Your task to perform on an android device: see tabs open on other devices in the chrome app Image 0: 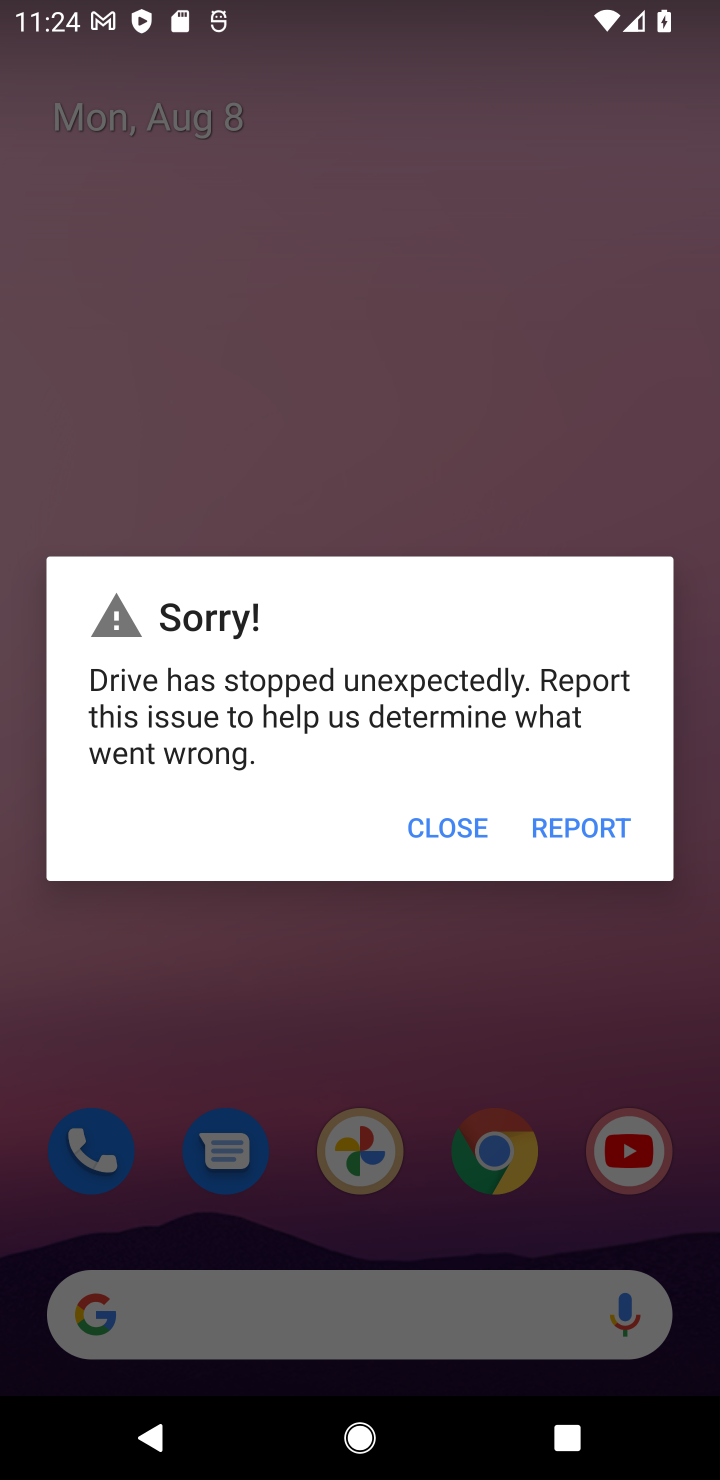
Step 0: click (421, 795)
Your task to perform on an android device: see tabs open on other devices in the chrome app Image 1: 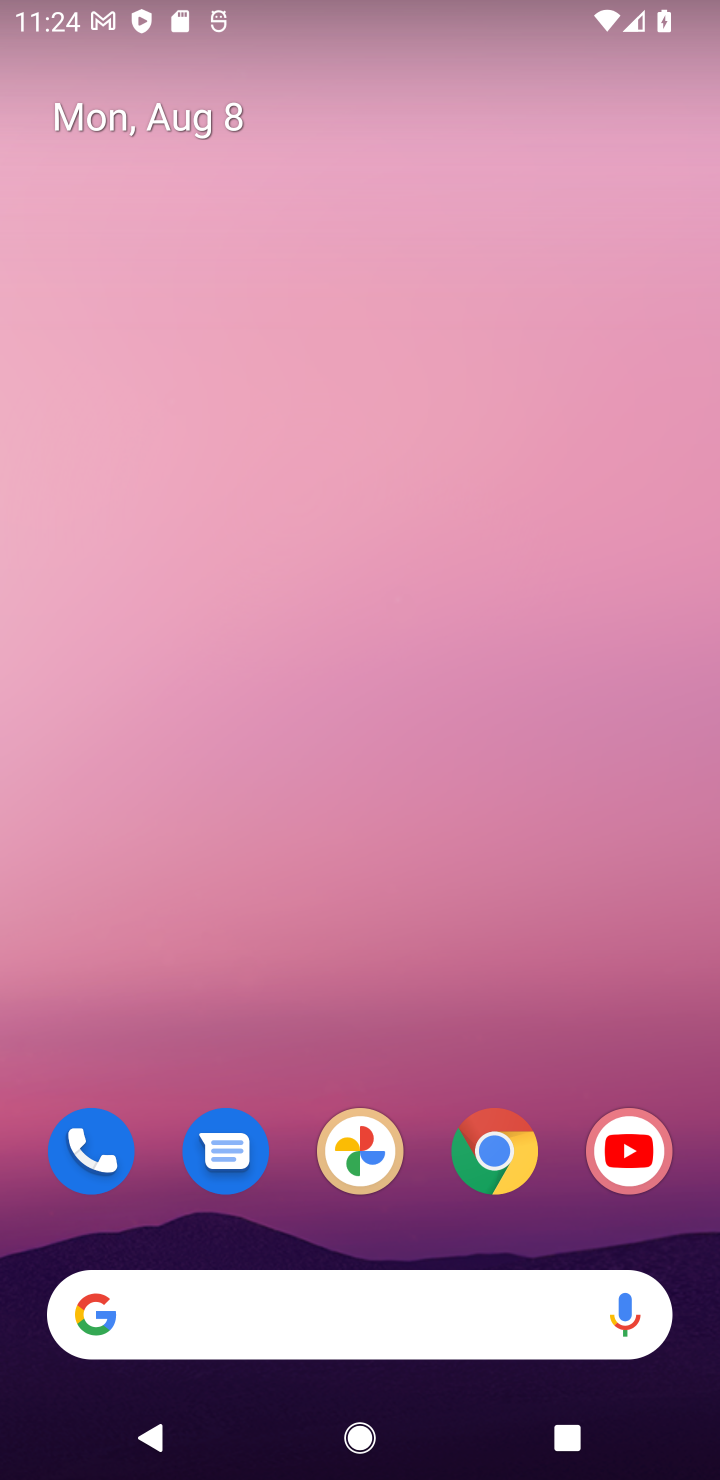
Step 1: click (485, 1140)
Your task to perform on an android device: see tabs open on other devices in the chrome app Image 2: 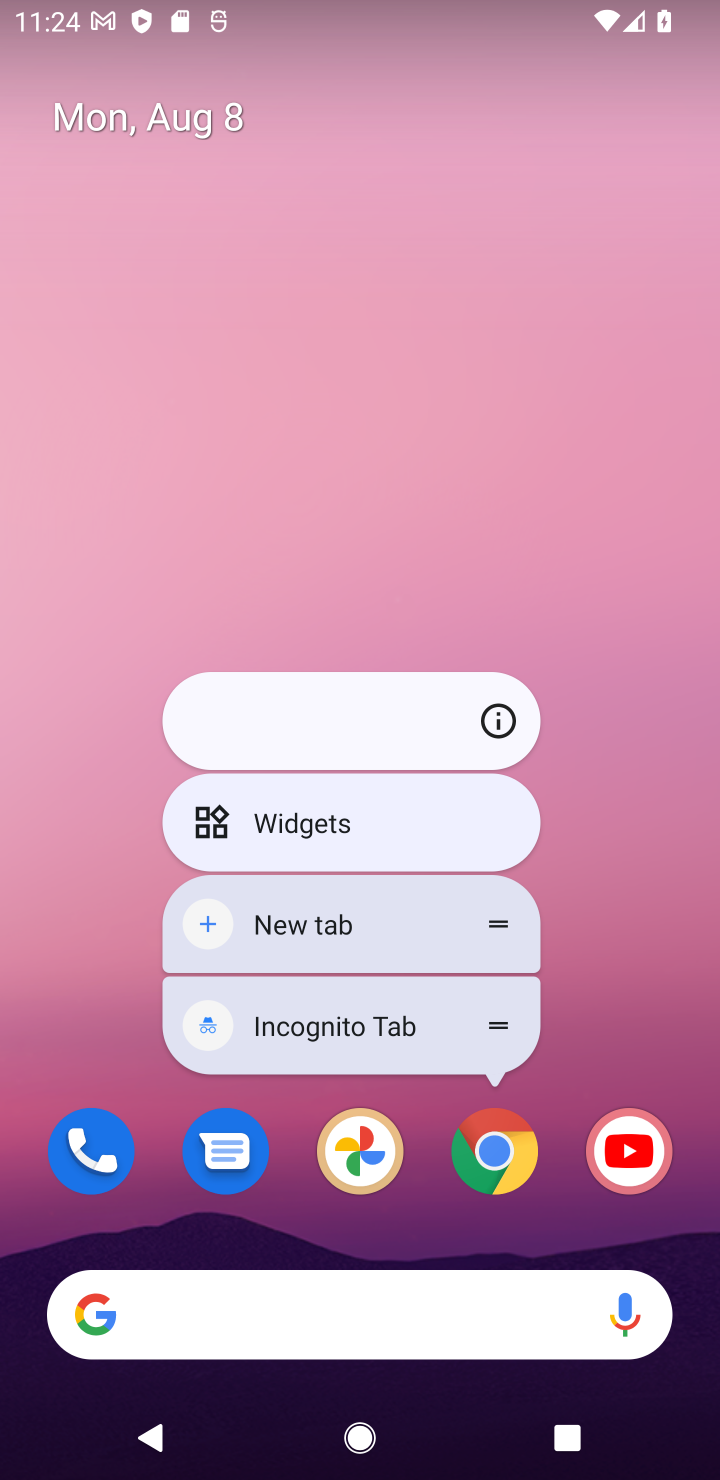
Step 2: click (493, 1165)
Your task to perform on an android device: see tabs open on other devices in the chrome app Image 3: 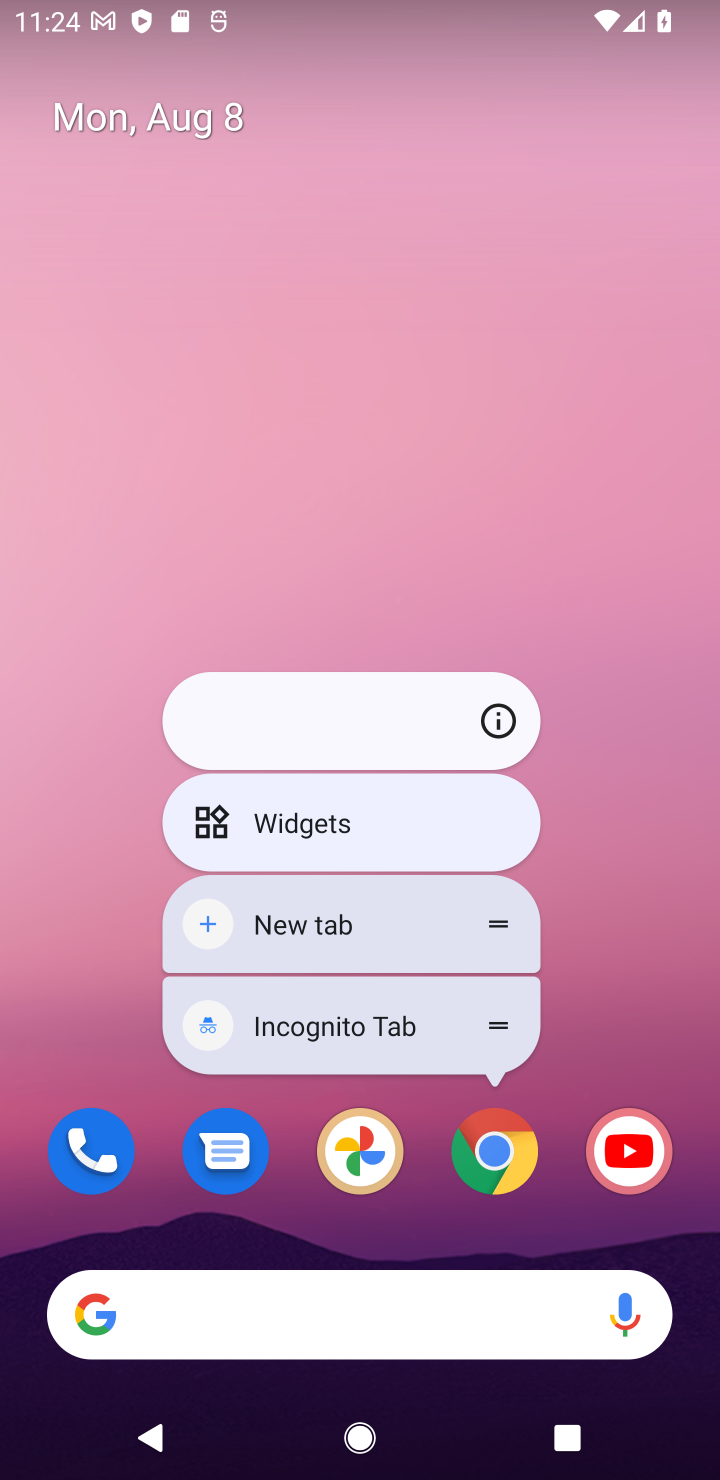
Step 3: click (493, 1165)
Your task to perform on an android device: see tabs open on other devices in the chrome app Image 4: 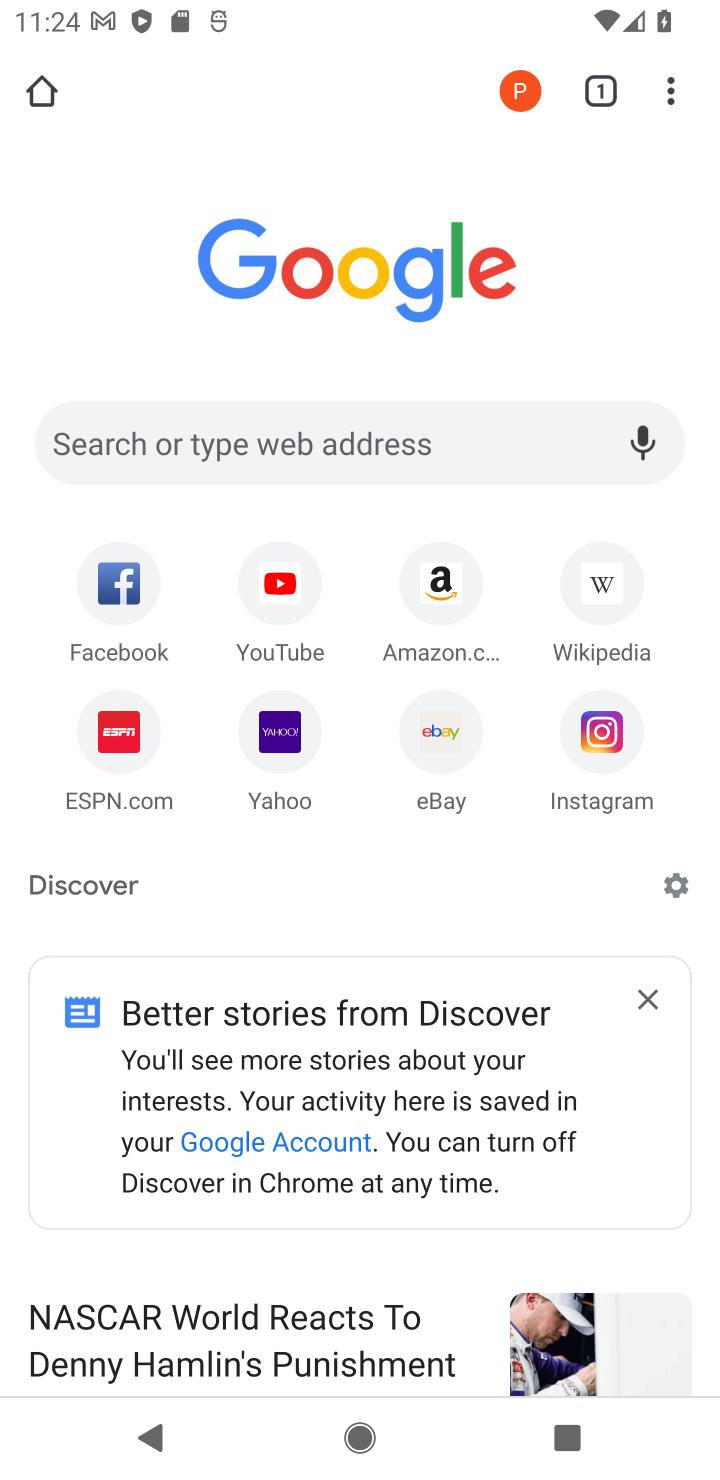
Step 4: click (665, 81)
Your task to perform on an android device: see tabs open on other devices in the chrome app Image 5: 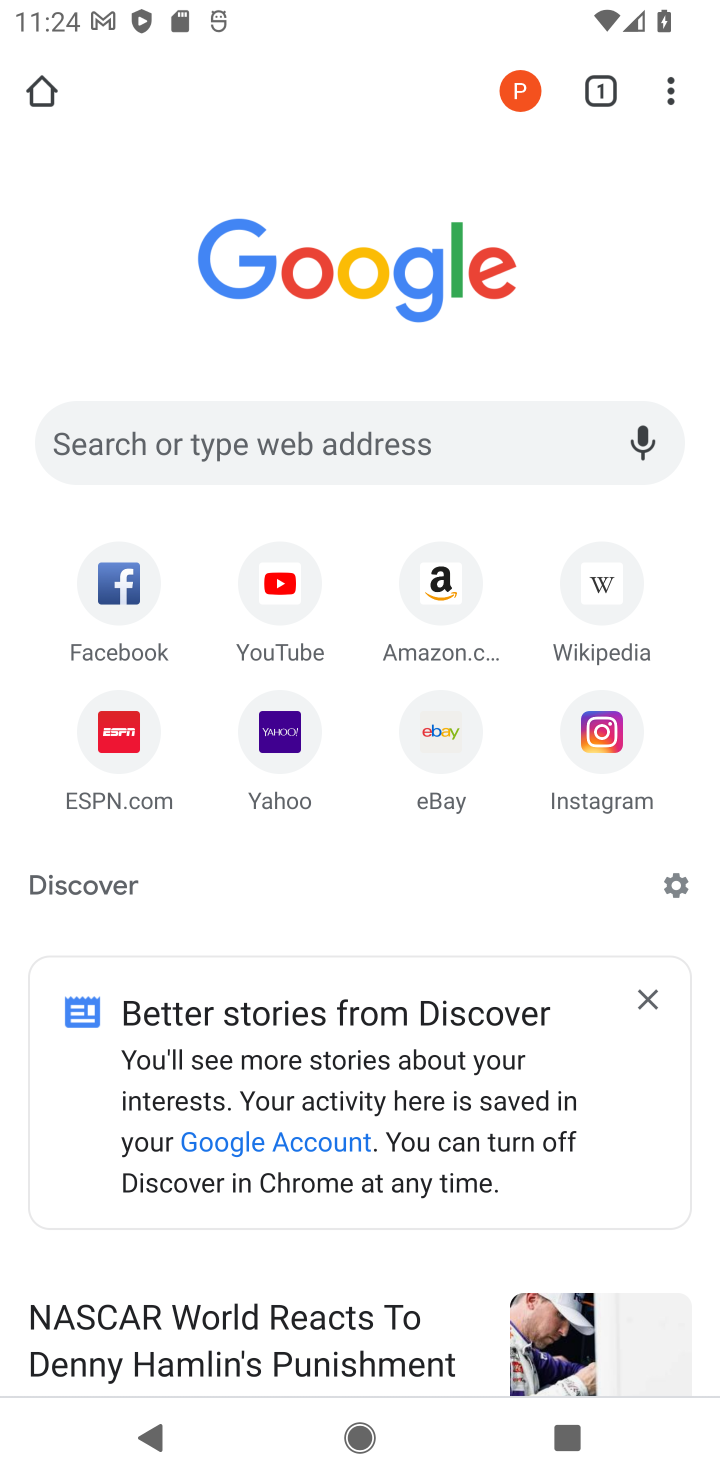
Step 5: click (672, 95)
Your task to perform on an android device: see tabs open on other devices in the chrome app Image 6: 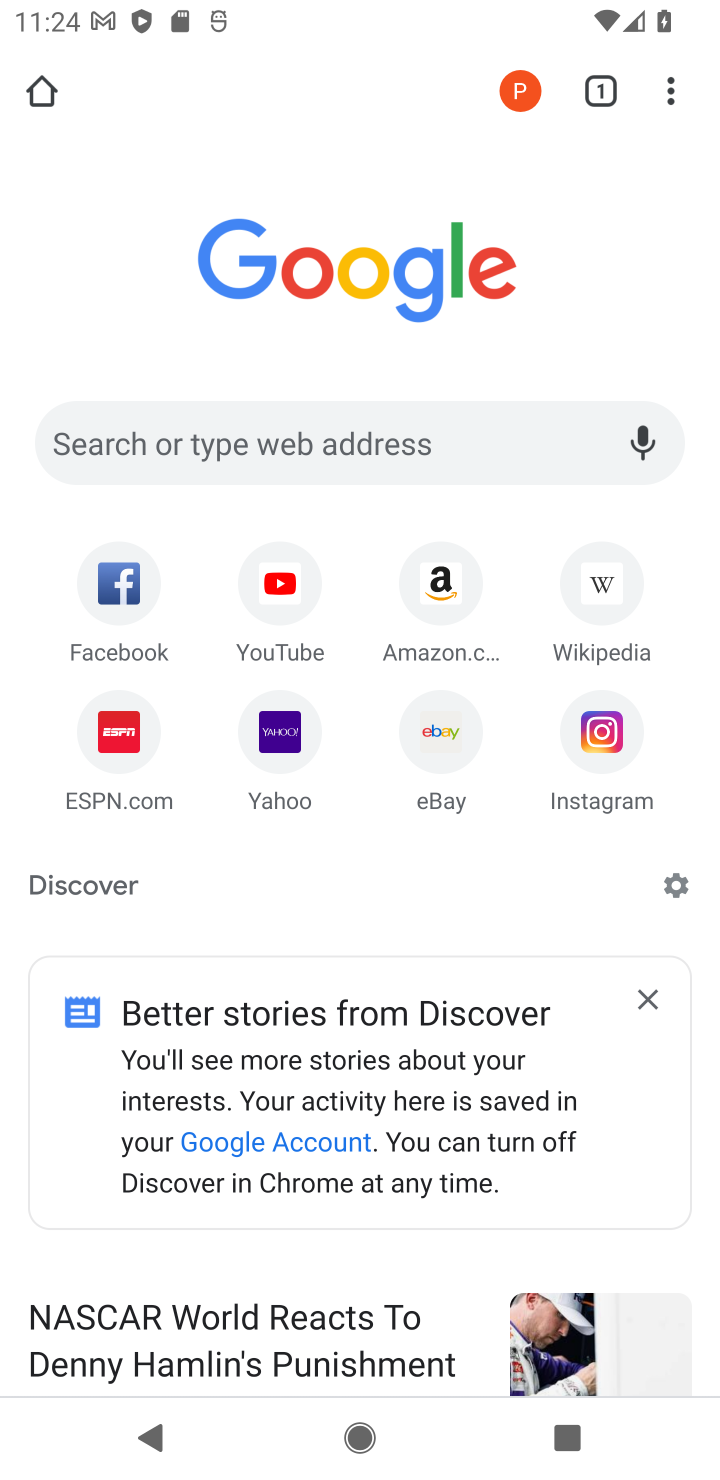
Step 6: click (658, 93)
Your task to perform on an android device: see tabs open on other devices in the chrome app Image 7: 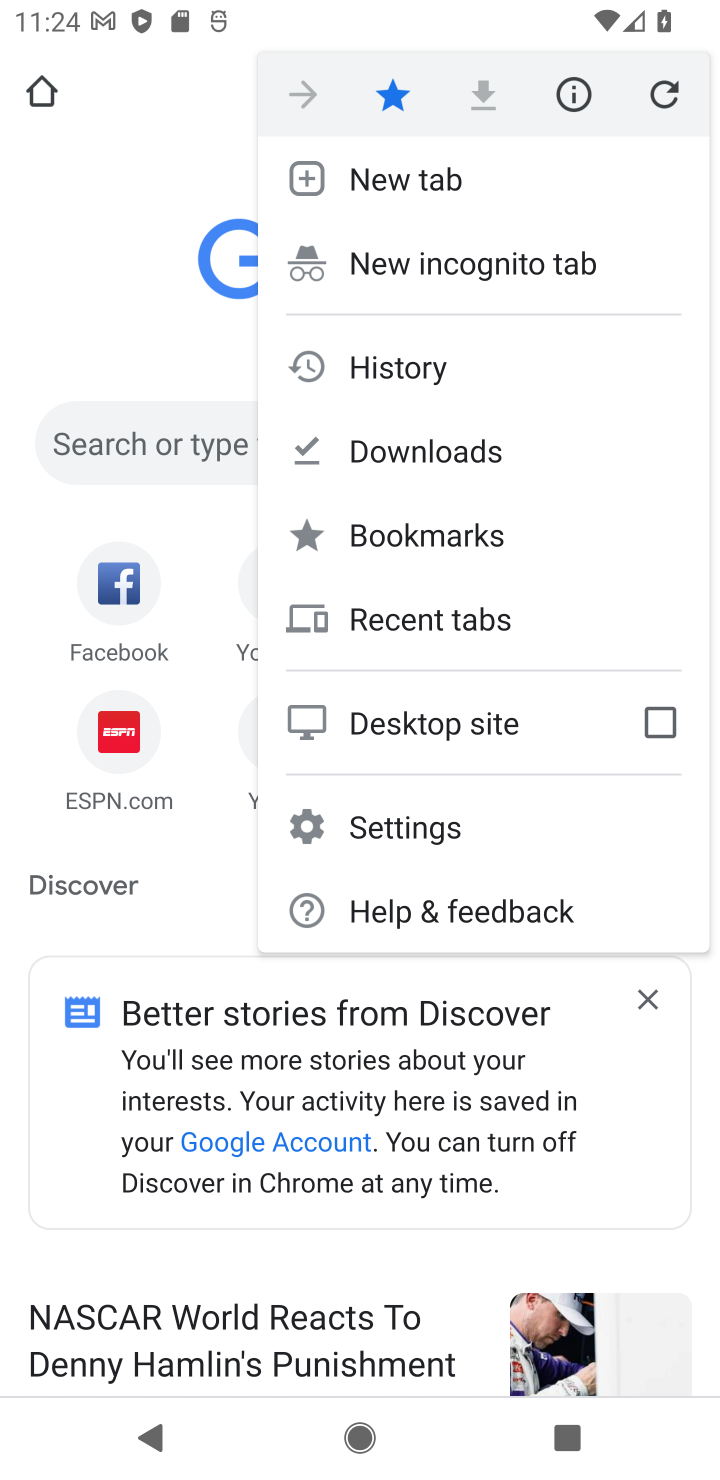
Step 7: click (61, 263)
Your task to perform on an android device: see tabs open on other devices in the chrome app Image 8: 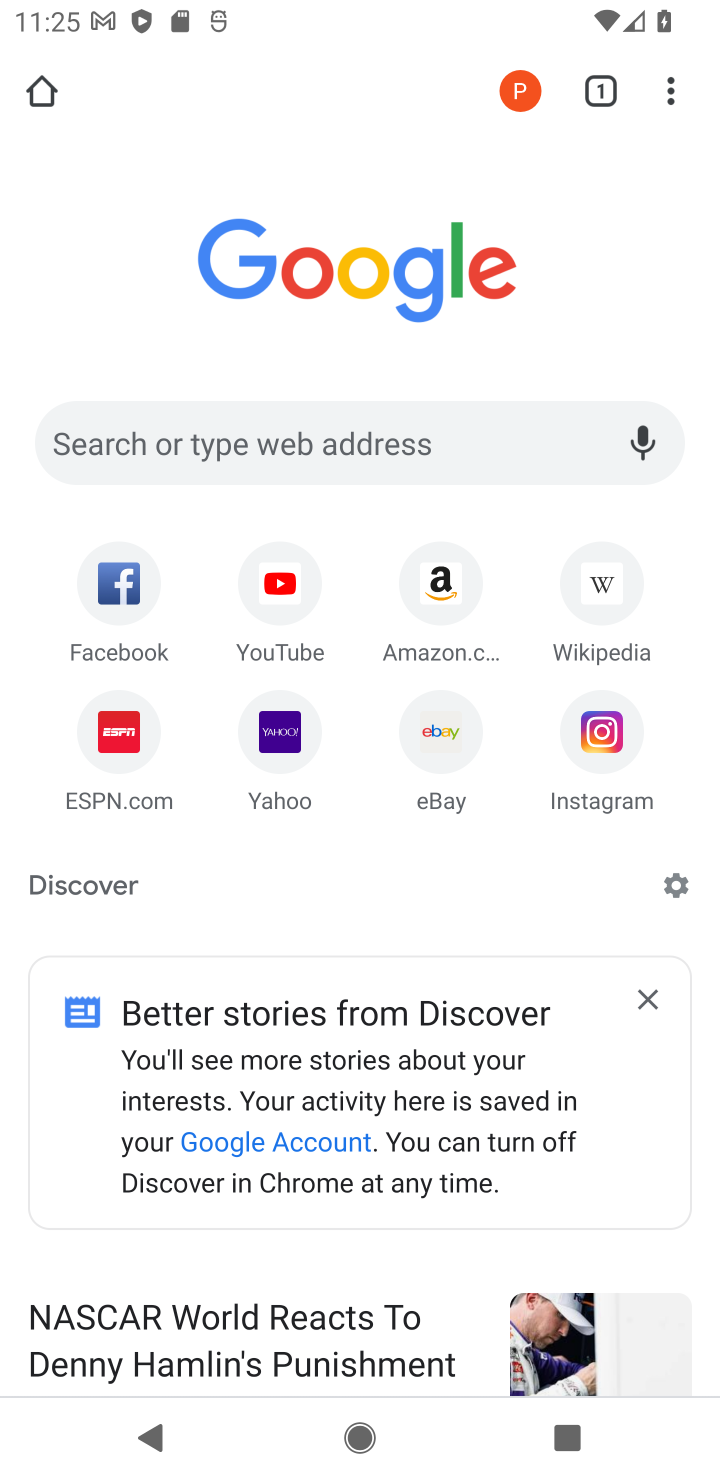
Step 8: click (593, 84)
Your task to perform on an android device: see tabs open on other devices in the chrome app Image 9: 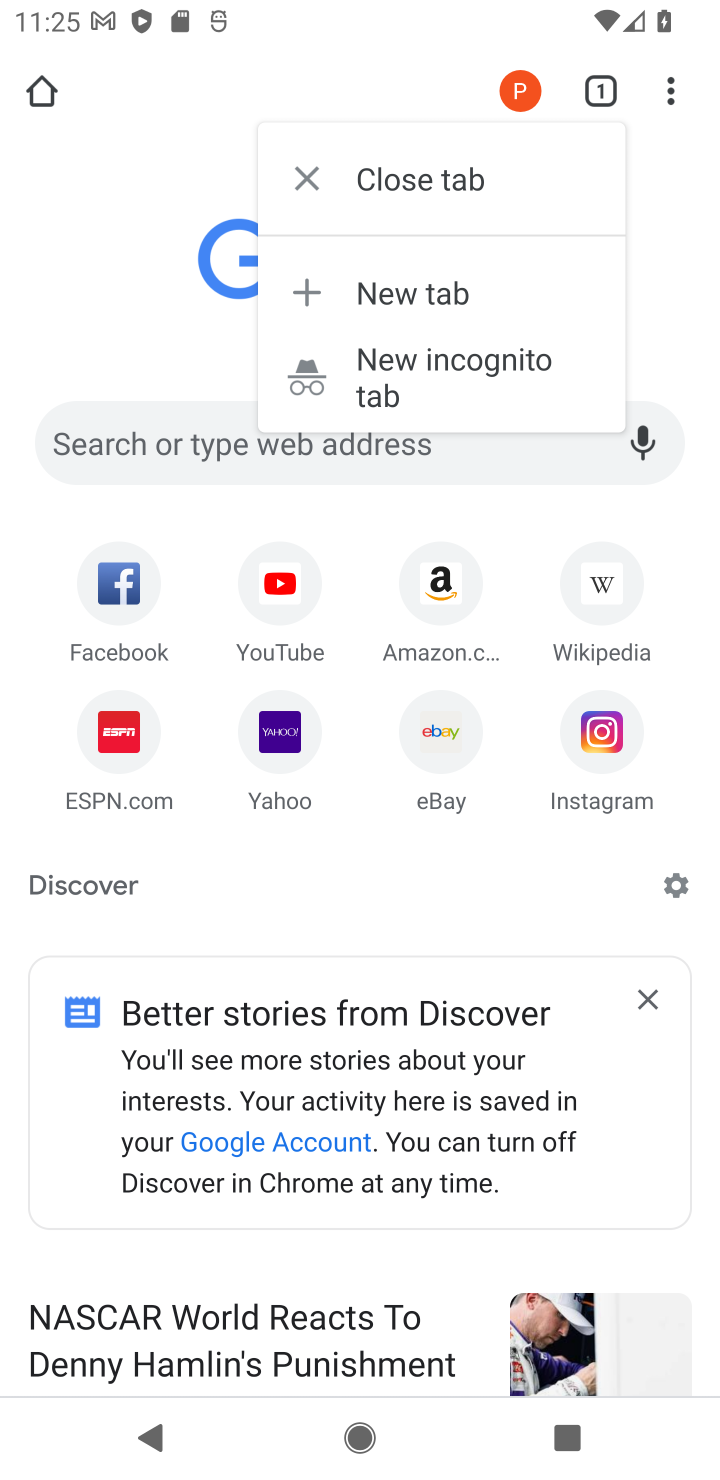
Step 9: task complete